Your task to perform on an android device: Turn on the flashlight Image 0: 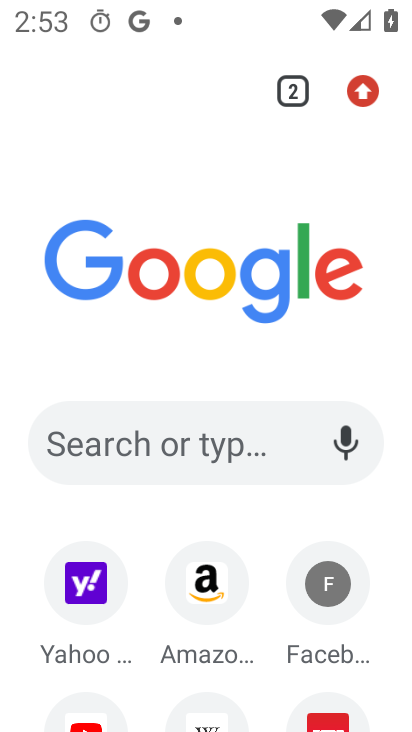
Step 0: click (355, 91)
Your task to perform on an android device: Turn on the flashlight Image 1: 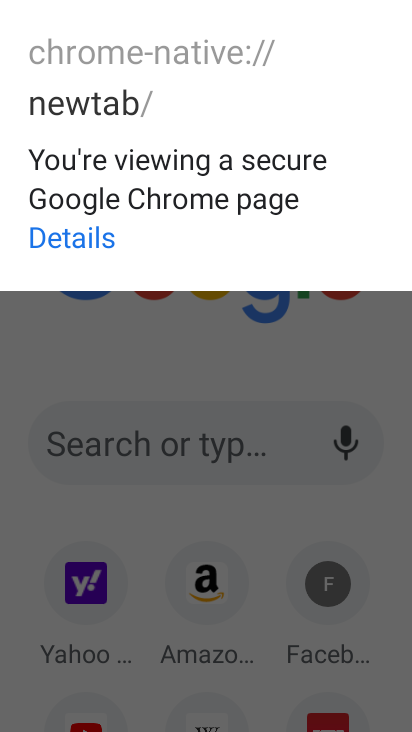
Step 1: press back button
Your task to perform on an android device: Turn on the flashlight Image 2: 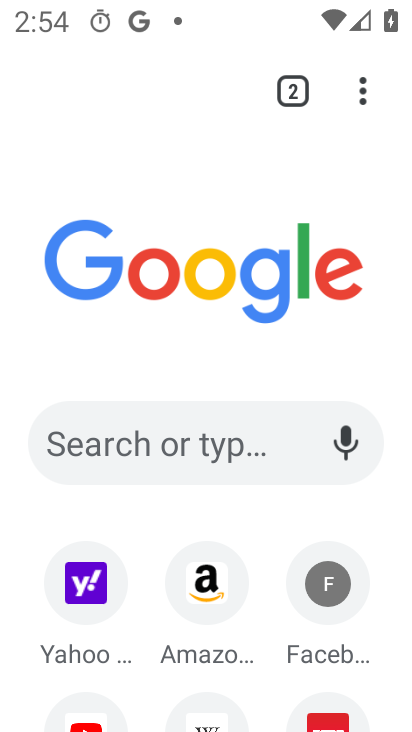
Step 2: press back button
Your task to perform on an android device: Turn on the flashlight Image 3: 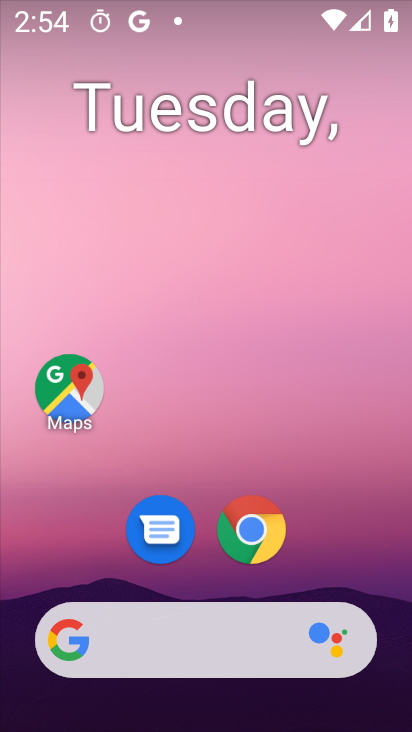
Step 3: drag from (364, 571) to (365, 128)
Your task to perform on an android device: Turn on the flashlight Image 4: 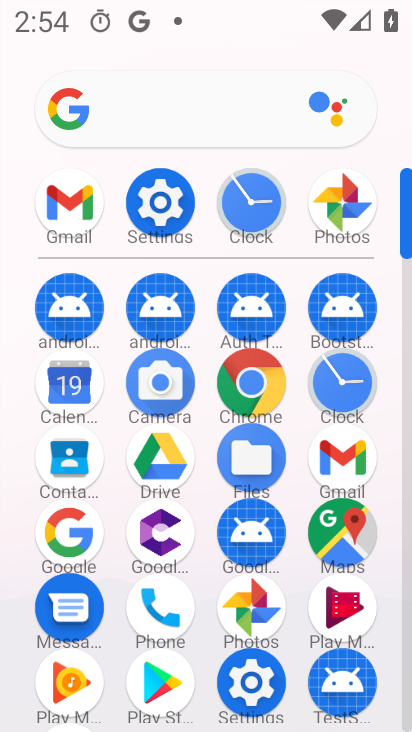
Step 4: click (252, 675)
Your task to perform on an android device: Turn on the flashlight Image 5: 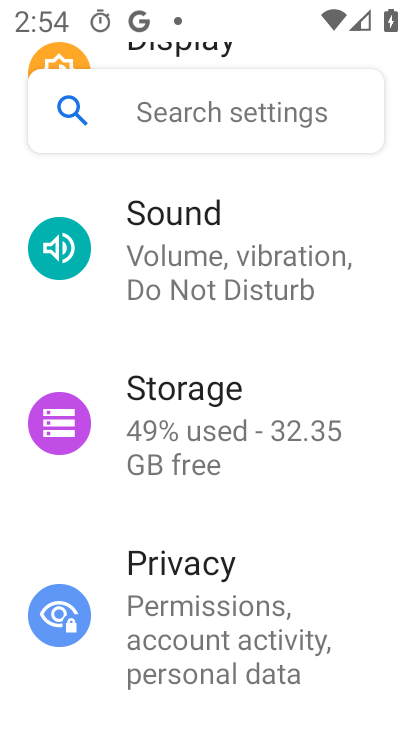
Step 5: drag from (329, 586) to (326, 663)
Your task to perform on an android device: Turn on the flashlight Image 6: 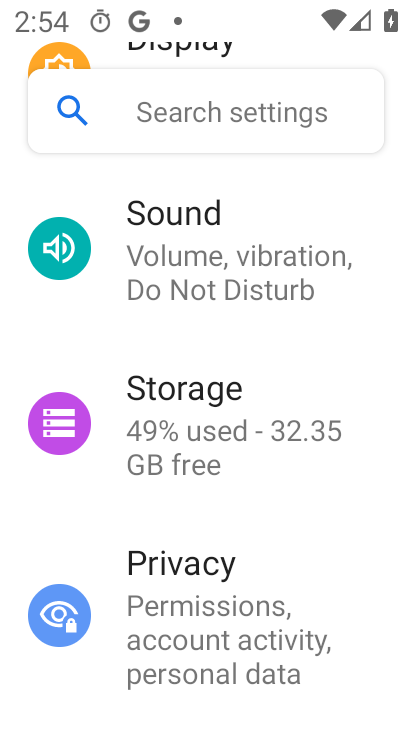
Step 6: drag from (384, 370) to (378, 592)
Your task to perform on an android device: Turn on the flashlight Image 7: 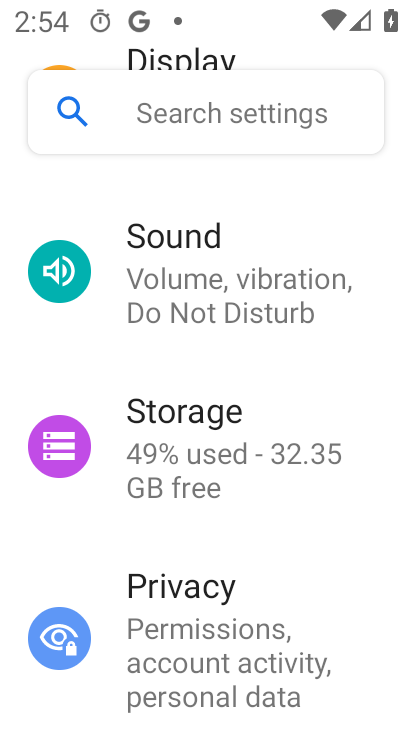
Step 7: drag from (403, 472) to (403, 648)
Your task to perform on an android device: Turn on the flashlight Image 8: 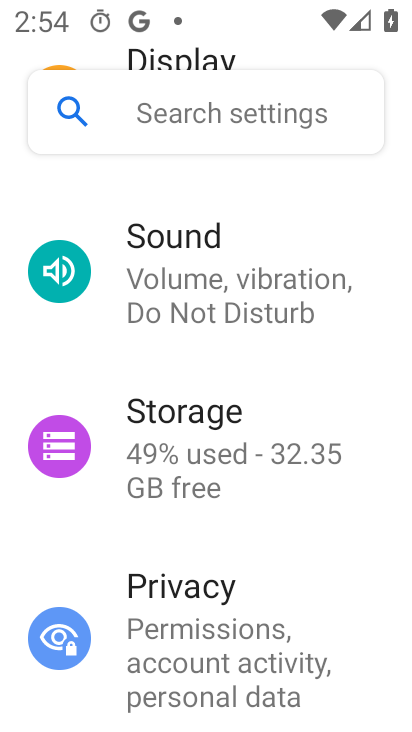
Step 8: click (181, 50)
Your task to perform on an android device: Turn on the flashlight Image 9: 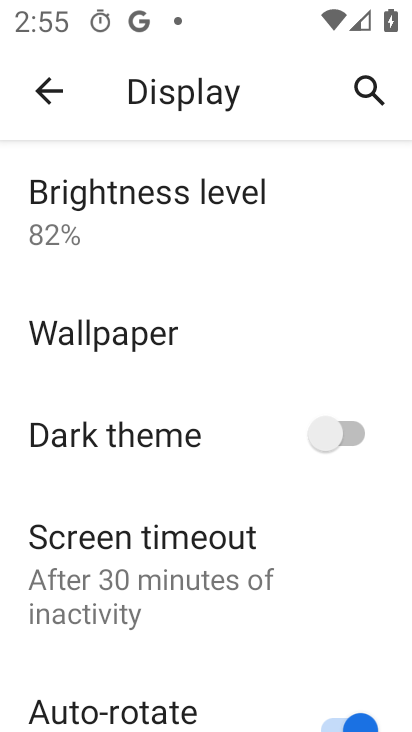
Step 9: task complete